Your task to perform on an android device: Open ESPN.com Image 0: 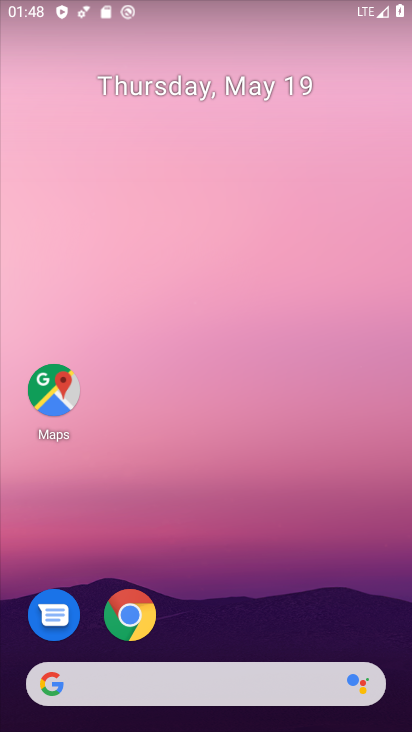
Step 0: click (127, 603)
Your task to perform on an android device: Open ESPN.com Image 1: 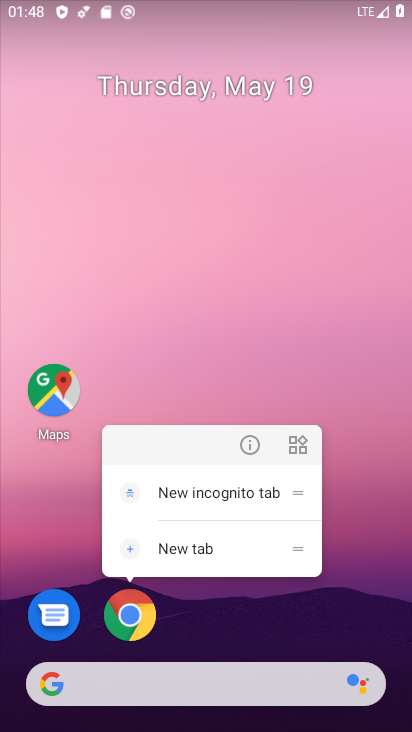
Step 1: click (132, 610)
Your task to perform on an android device: Open ESPN.com Image 2: 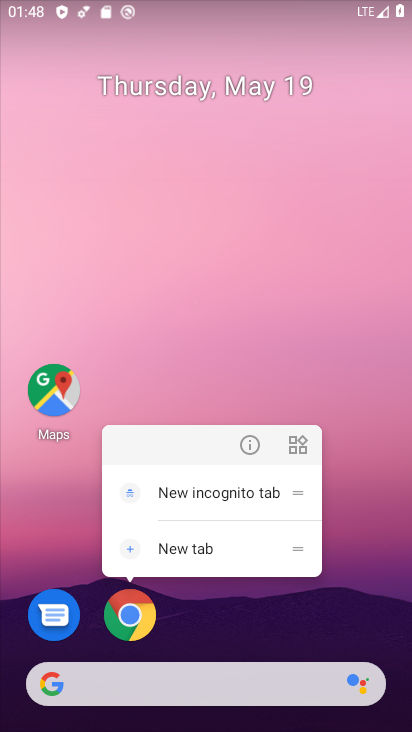
Step 2: click (132, 610)
Your task to perform on an android device: Open ESPN.com Image 3: 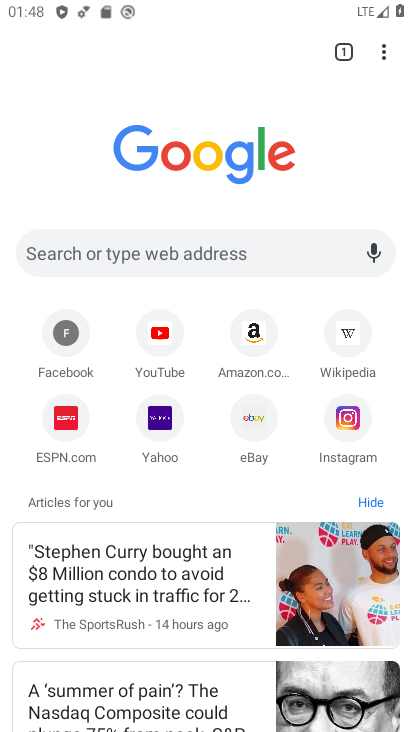
Step 3: click (77, 404)
Your task to perform on an android device: Open ESPN.com Image 4: 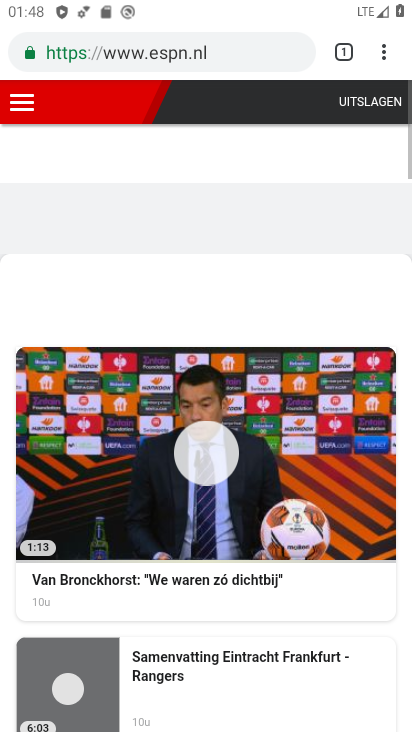
Step 4: task complete